Your task to perform on an android device: Show me the alarms in the clock app Image 0: 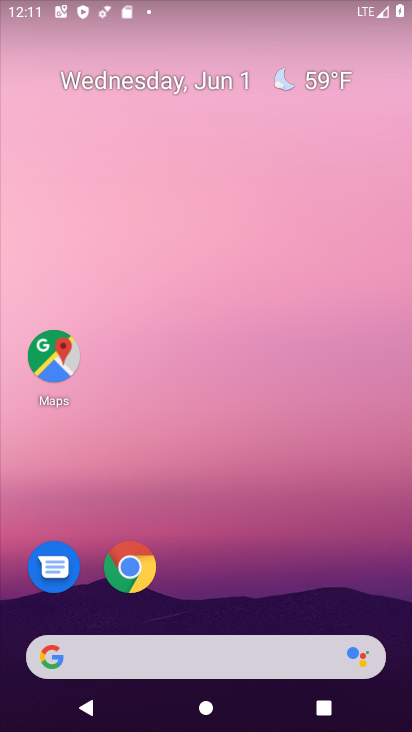
Step 0: drag from (247, 591) to (205, 176)
Your task to perform on an android device: Show me the alarms in the clock app Image 1: 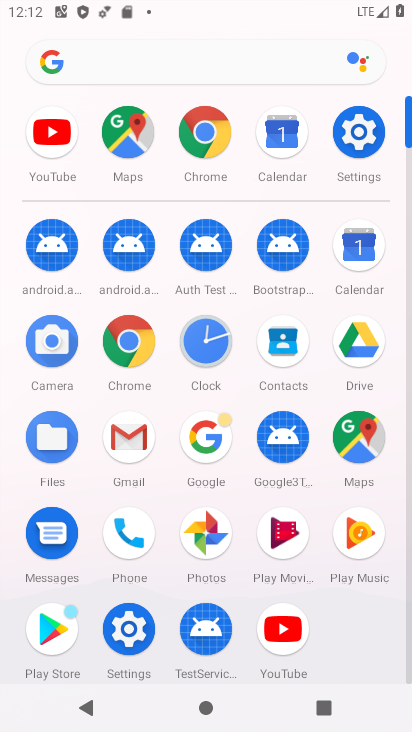
Step 1: click (213, 348)
Your task to perform on an android device: Show me the alarms in the clock app Image 2: 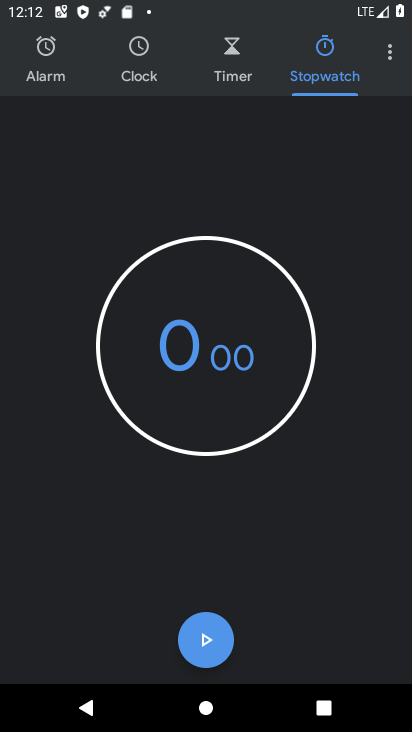
Step 2: click (52, 63)
Your task to perform on an android device: Show me the alarms in the clock app Image 3: 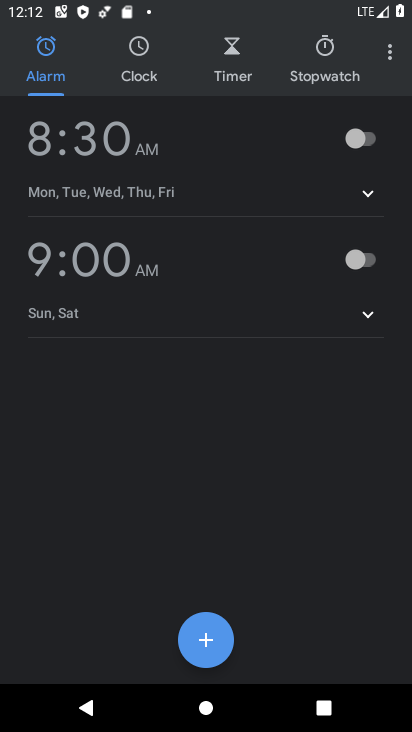
Step 3: task complete